Your task to perform on an android device: turn smart compose on in the gmail app Image 0: 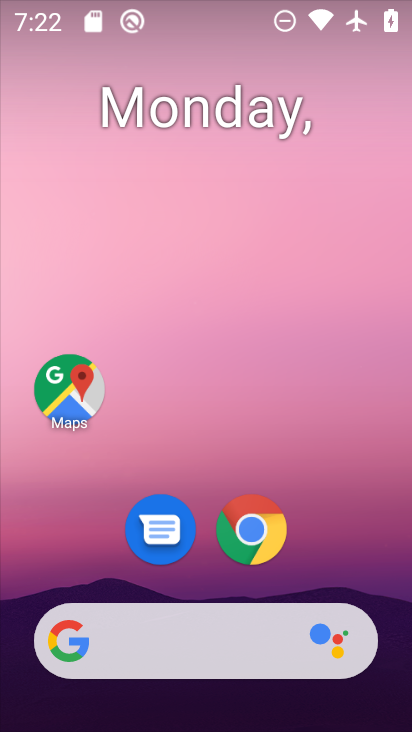
Step 0: drag from (309, 486) to (228, 72)
Your task to perform on an android device: turn smart compose on in the gmail app Image 1: 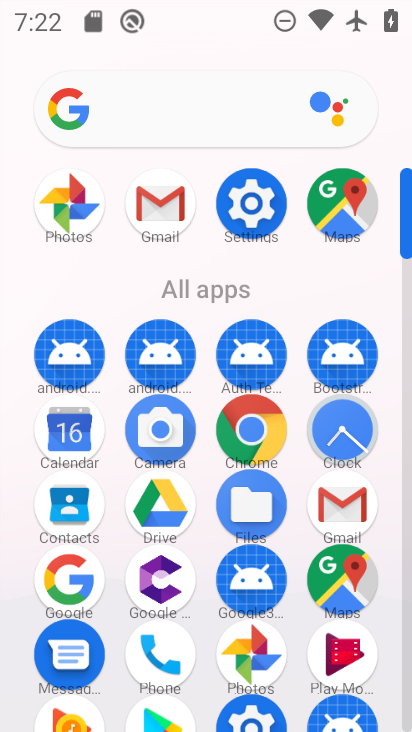
Step 1: click (150, 195)
Your task to perform on an android device: turn smart compose on in the gmail app Image 2: 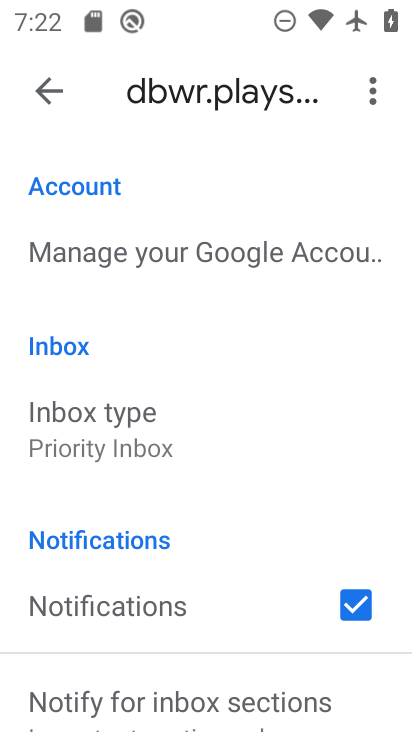
Step 2: drag from (186, 362) to (175, 146)
Your task to perform on an android device: turn smart compose on in the gmail app Image 3: 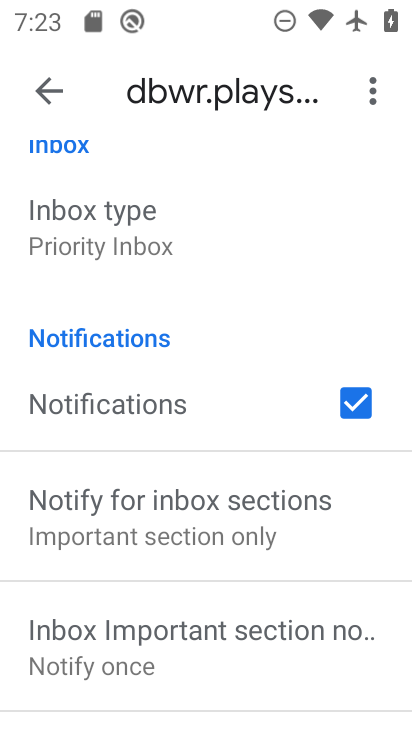
Step 3: drag from (232, 584) to (173, 245)
Your task to perform on an android device: turn smart compose on in the gmail app Image 4: 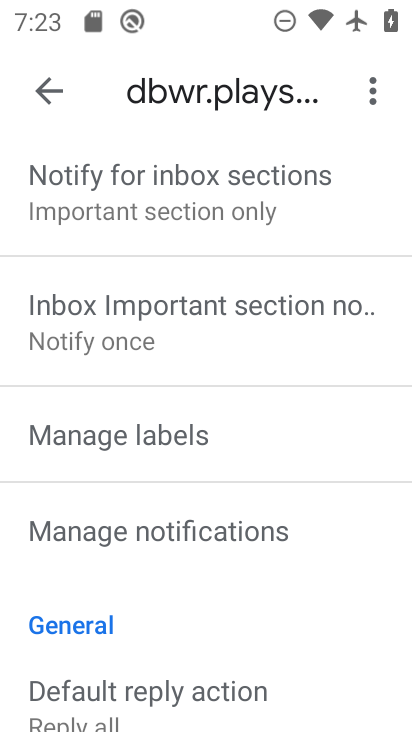
Step 4: drag from (255, 466) to (222, 179)
Your task to perform on an android device: turn smart compose on in the gmail app Image 5: 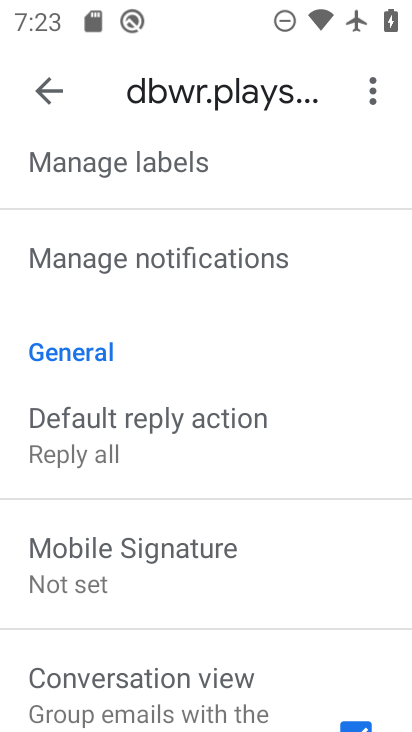
Step 5: drag from (267, 476) to (178, 107)
Your task to perform on an android device: turn smart compose on in the gmail app Image 6: 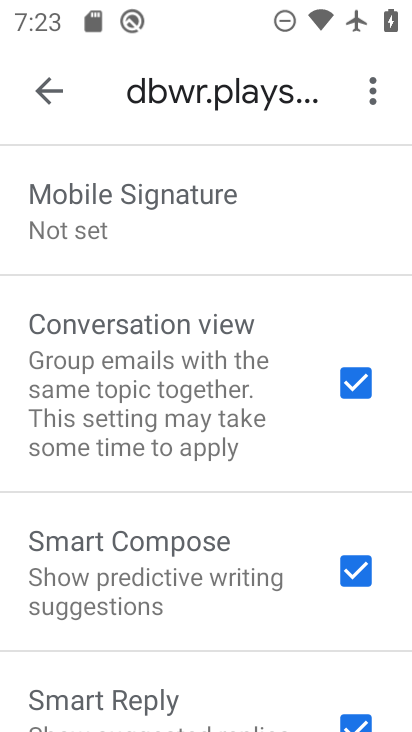
Step 6: click (289, 576)
Your task to perform on an android device: turn smart compose on in the gmail app Image 7: 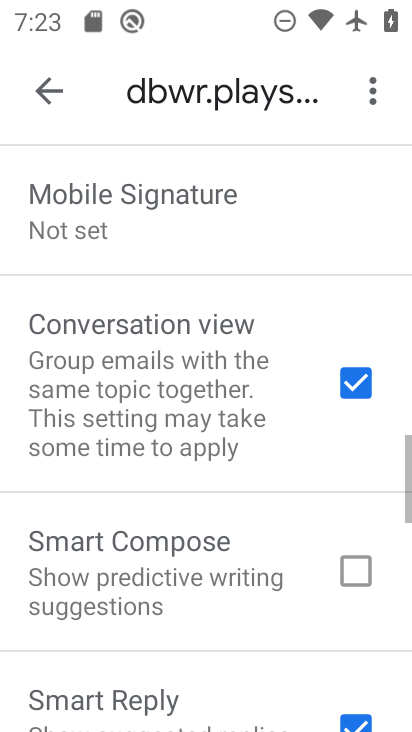
Step 7: task complete